Your task to perform on an android device: Open calendar and show me the second week of next month Image 0: 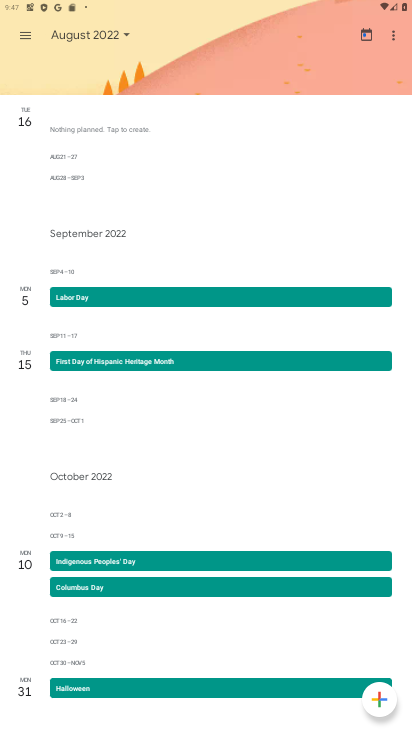
Step 0: click (99, 35)
Your task to perform on an android device: Open calendar and show me the second week of next month Image 1: 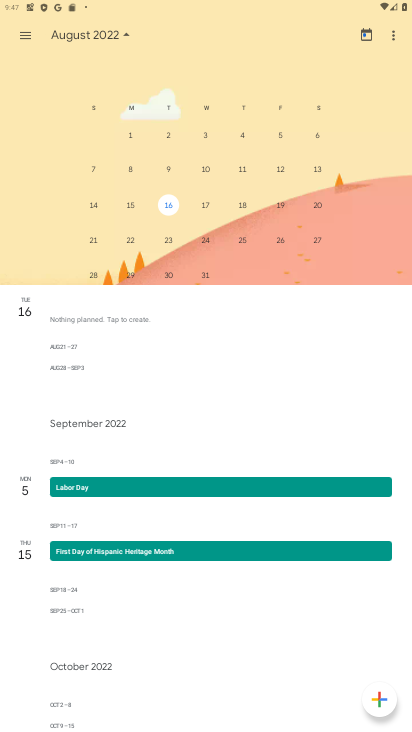
Step 1: click (169, 171)
Your task to perform on an android device: Open calendar and show me the second week of next month Image 2: 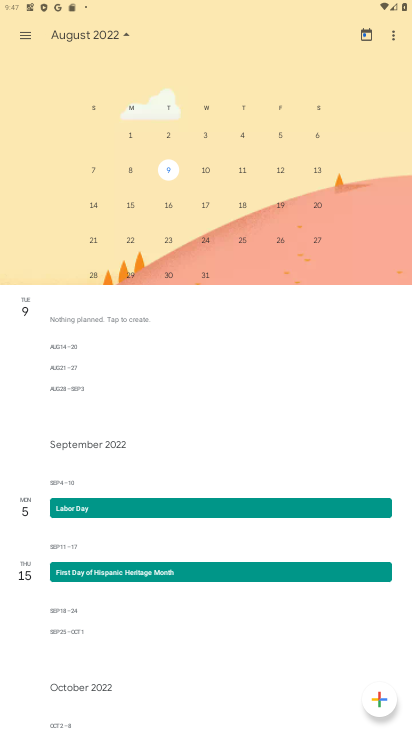
Step 2: task complete